Your task to perform on an android device: all mails in gmail Image 0: 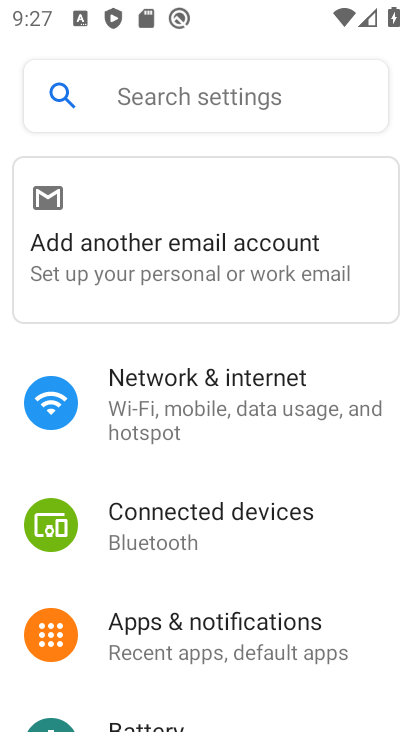
Step 0: press home button
Your task to perform on an android device: all mails in gmail Image 1: 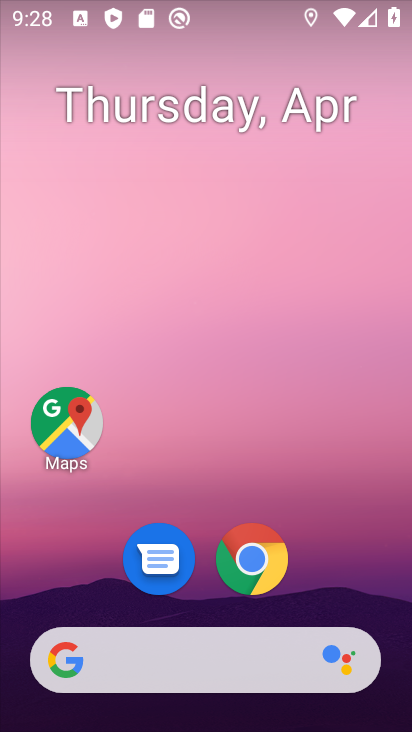
Step 1: drag from (225, 710) to (249, 2)
Your task to perform on an android device: all mails in gmail Image 2: 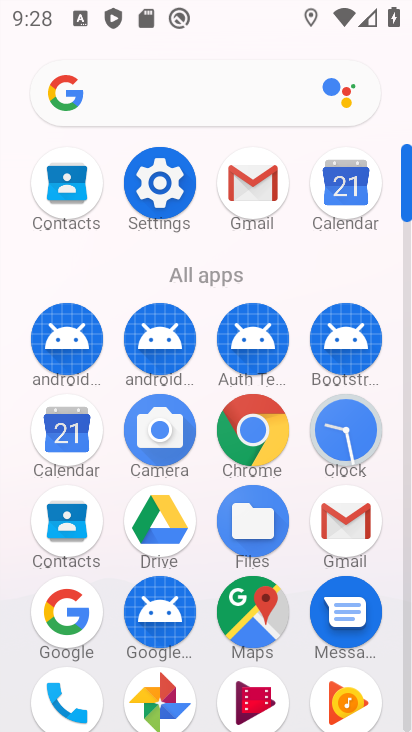
Step 2: click (271, 173)
Your task to perform on an android device: all mails in gmail Image 3: 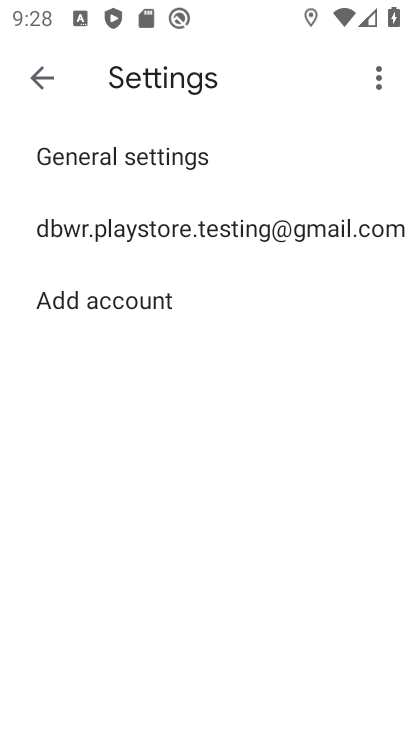
Step 3: press back button
Your task to perform on an android device: all mails in gmail Image 4: 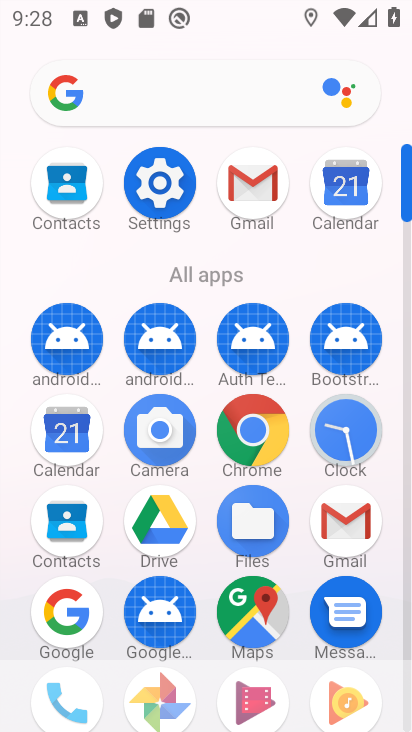
Step 4: click (229, 180)
Your task to perform on an android device: all mails in gmail Image 5: 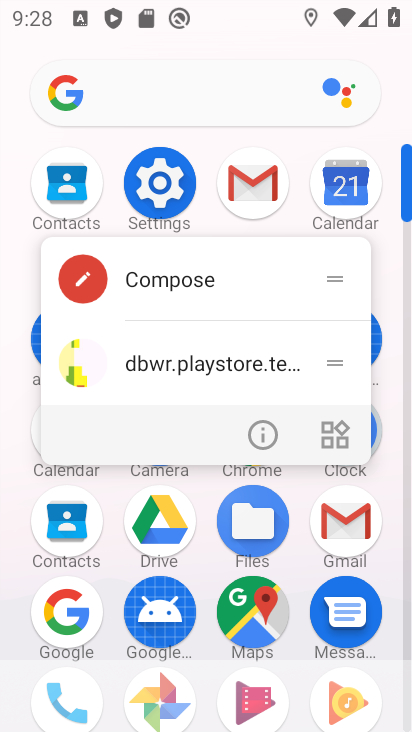
Step 5: click (229, 180)
Your task to perform on an android device: all mails in gmail Image 6: 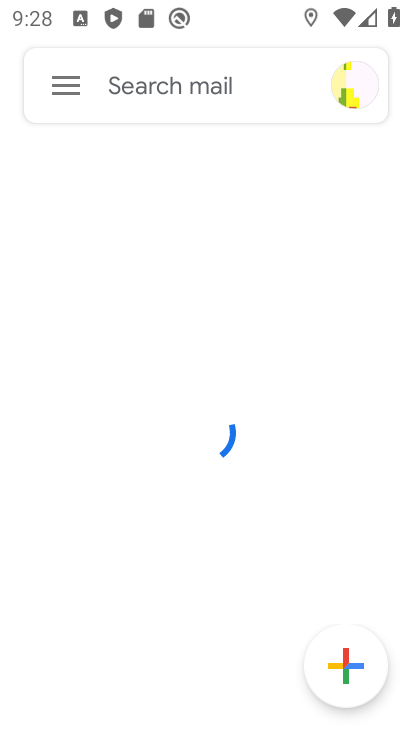
Step 6: click (51, 88)
Your task to perform on an android device: all mails in gmail Image 7: 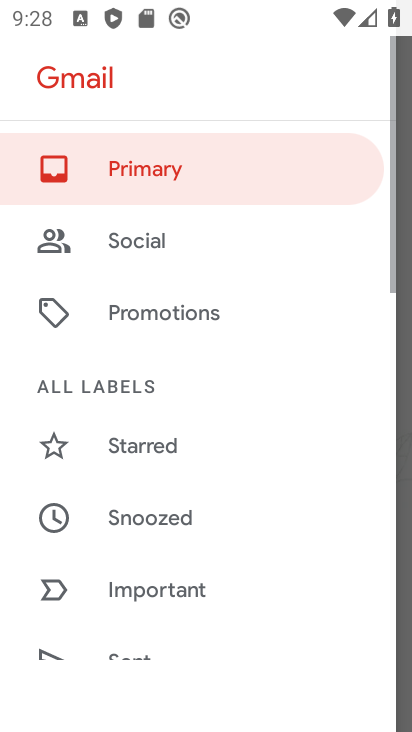
Step 7: drag from (239, 624) to (240, 73)
Your task to perform on an android device: all mails in gmail Image 8: 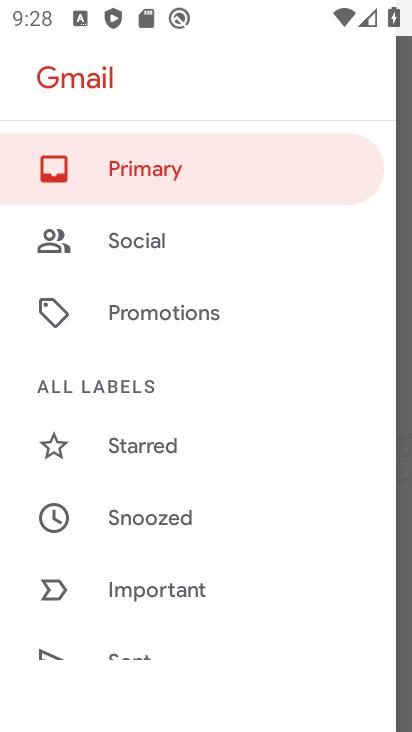
Step 8: drag from (210, 615) to (205, 197)
Your task to perform on an android device: all mails in gmail Image 9: 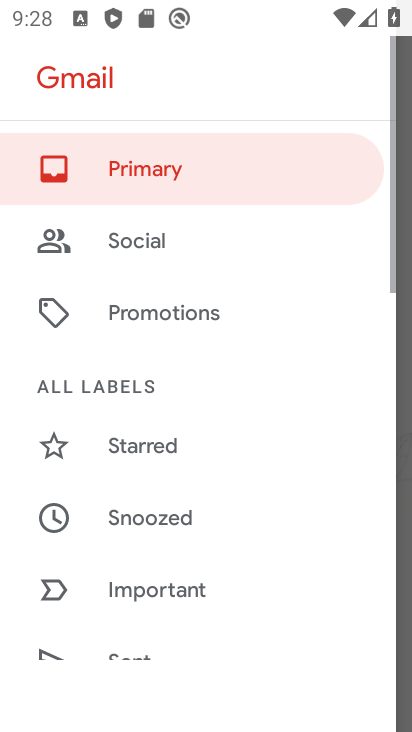
Step 9: drag from (207, 631) to (203, 147)
Your task to perform on an android device: all mails in gmail Image 10: 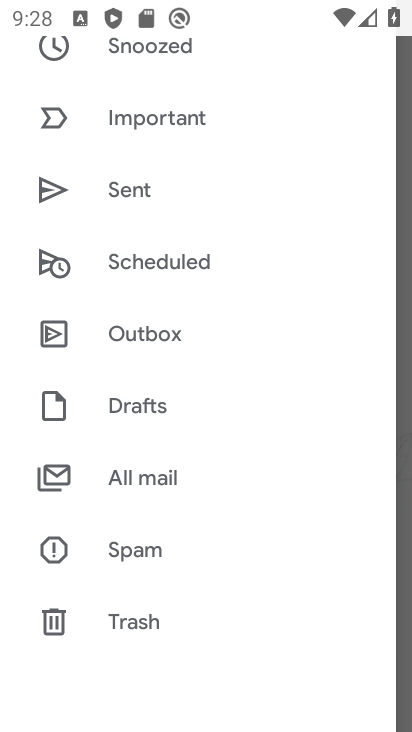
Step 10: click (145, 487)
Your task to perform on an android device: all mails in gmail Image 11: 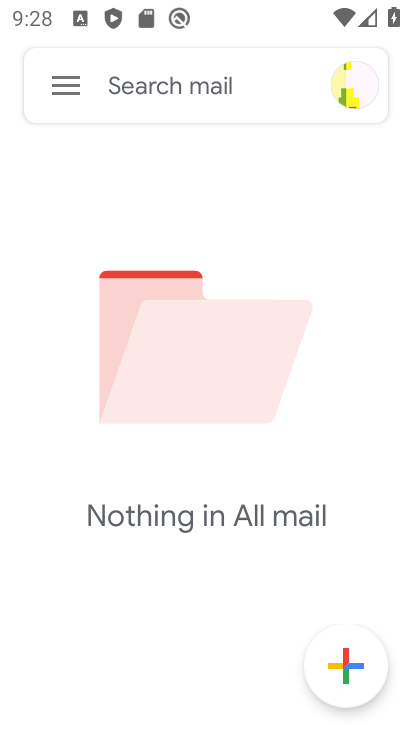
Step 11: task complete